Your task to perform on an android device: turn off improve location accuracy Image 0: 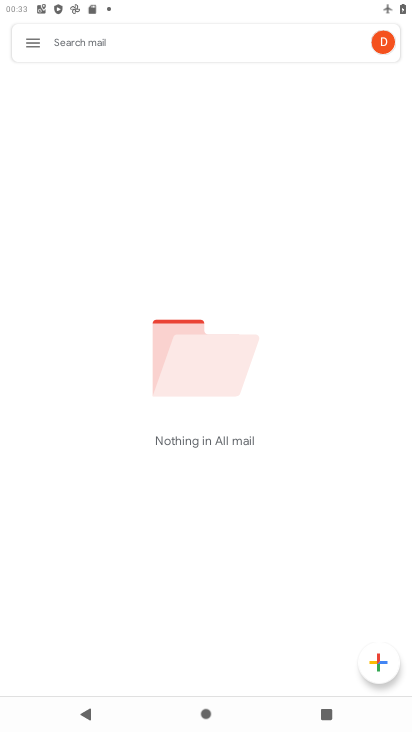
Step 0: press home button
Your task to perform on an android device: turn off improve location accuracy Image 1: 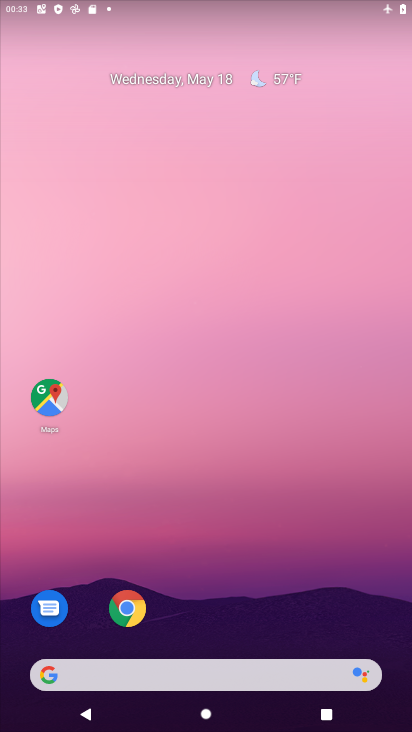
Step 1: drag from (308, 501) to (266, 194)
Your task to perform on an android device: turn off improve location accuracy Image 2: 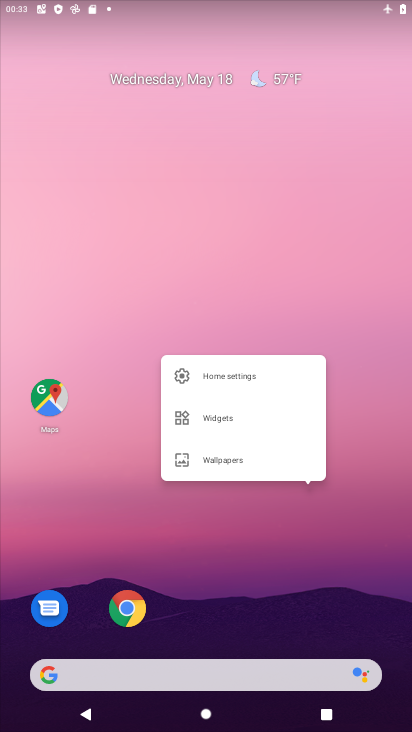
Step 2: click (170, 236)
Your task to perform on an android device: turn off improve location accuracy Image 3: 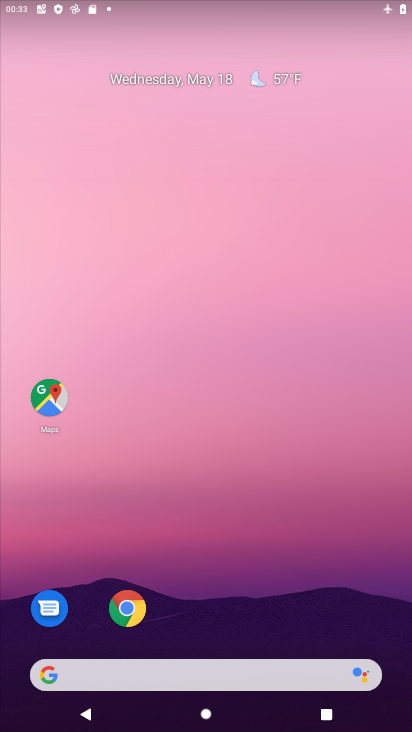
Step 3: drag from (226, 589) to (197, 196)
Your task to perform on an android device: turn off improve location accuracy Image 4: 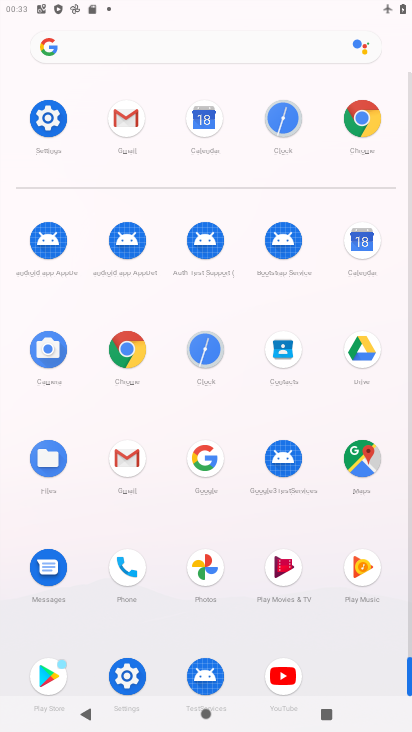
Step 4: click (126, 663)
Your task to perform on an android device: turn off improve location accuracy Image 5: 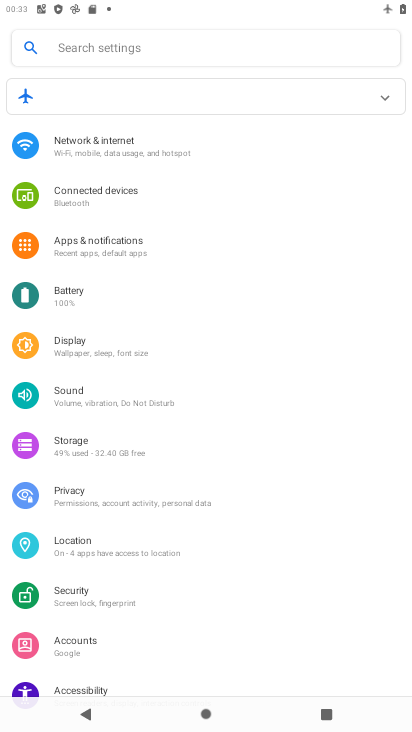
Step 5: click (66, 541)
Your task to perform on an android device: turn off improve location accuracy Image 6: 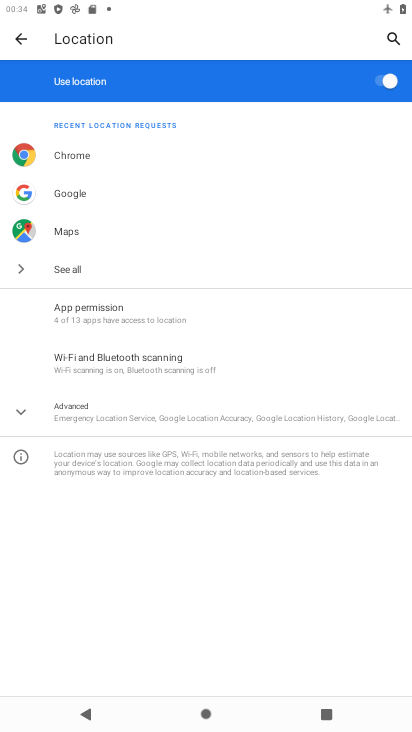
Step 6: click (19, 412)
Your task to perform on an android device: turn off improve location accuracy Image 7: 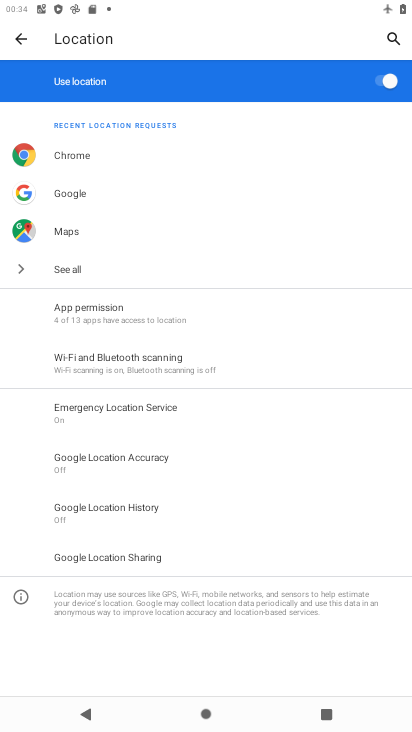
Step 7: click (149, 460)
Your task to perform on an android device: turn off improve location accuracy Image 8: 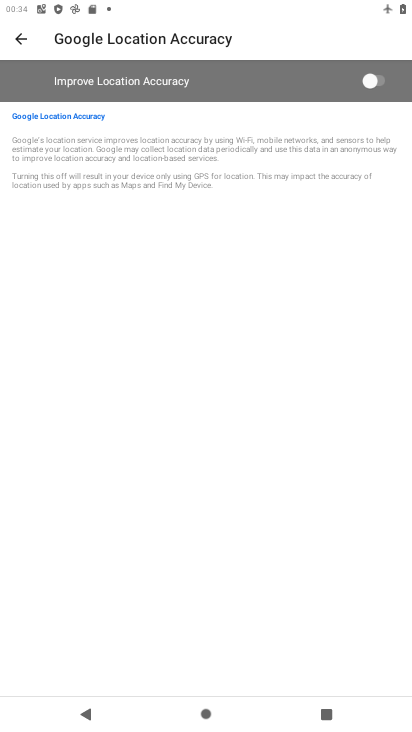
Step 8: task complete